Your task to perform on an android device: What is the news today? Image 0: 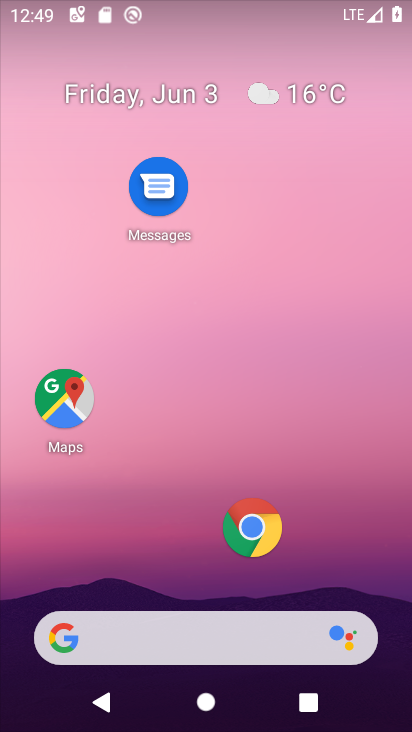
Step 0: press home button
Your task to perform on an android device: What is the news today? Image 1: 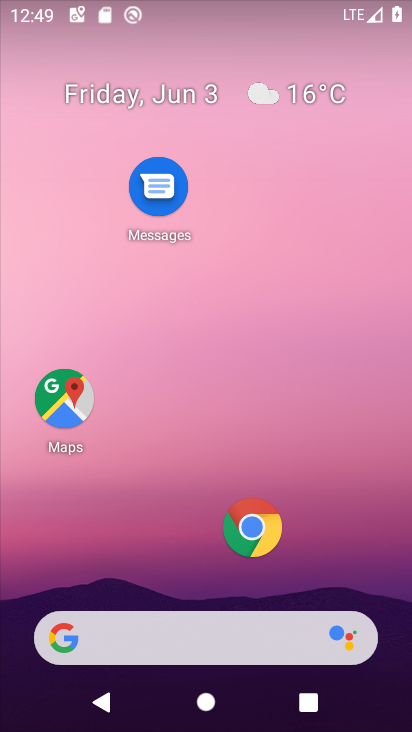
Step 1: drag from (13, 305) to (411, 296)
Your task to perform on an android device: What is the news today? Image 2: 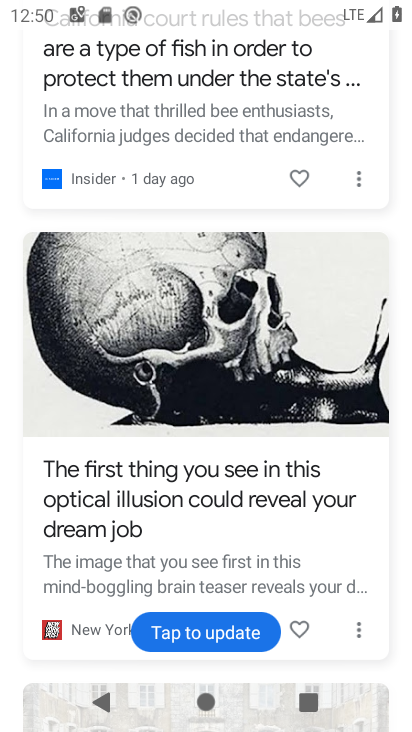
Step 2: click (228, 565)
Your task to perform on an android device: What is the news today? Image 3: 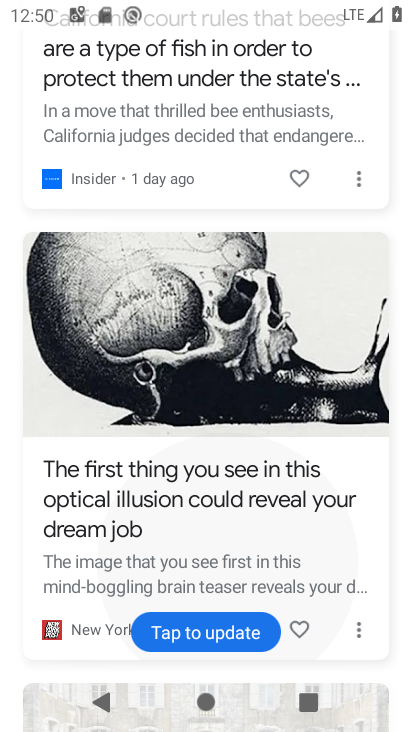
Step 3: drag from (229, 506) to (233, 466)
Your task to perform on an android device: What is the news today? Image 4: 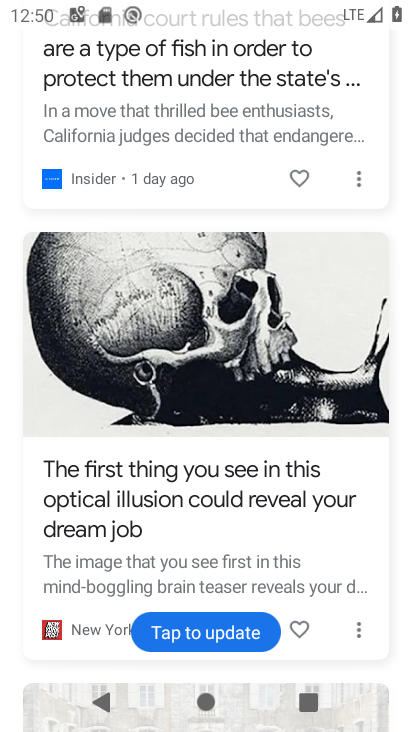
Step 4: click (233, 371)
Your task to perform on an android device: What is the news today? Image 5: 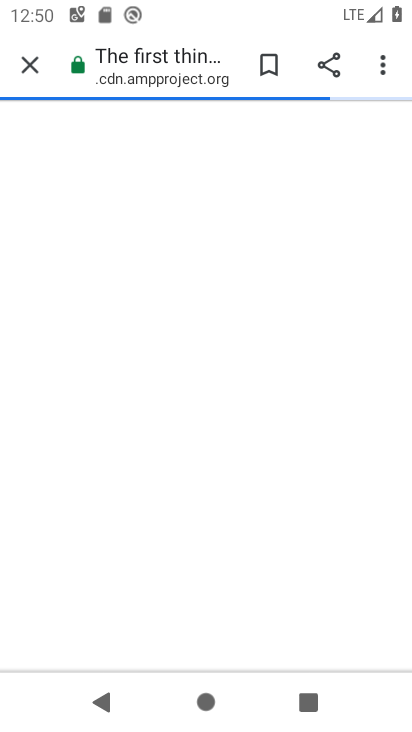
Step 5: task complete